Your task to perform on an android device: open a new tab in the chrome app Image 0: 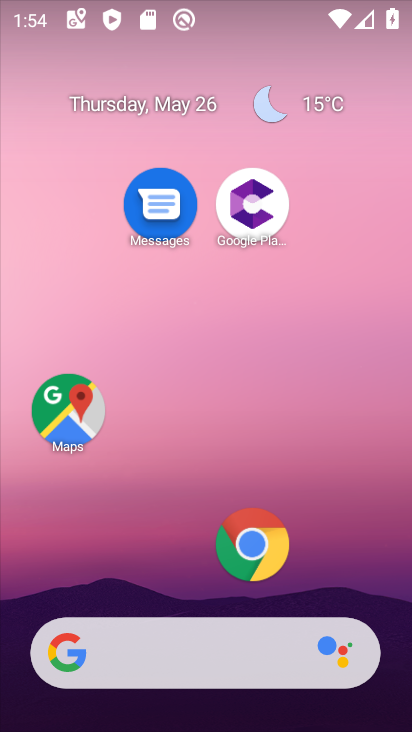
Step 0: click (268, 531)
Your task to perform on an android device: open a new tab in the chrome app Image 1: 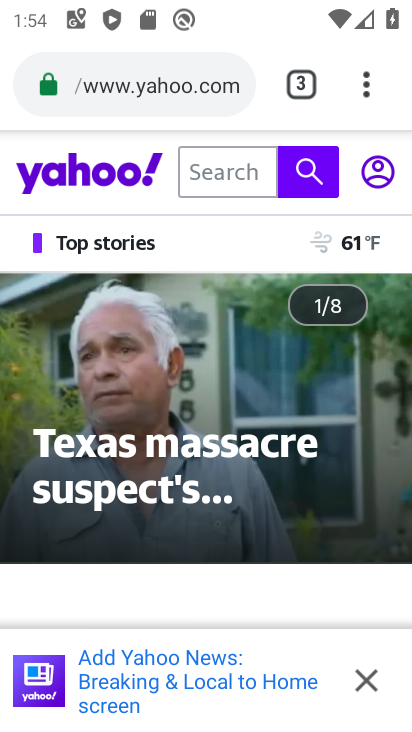
Step 1: click (382, 77)
Your task to perform on an android device: open a new tab in the chrome app Image 2: 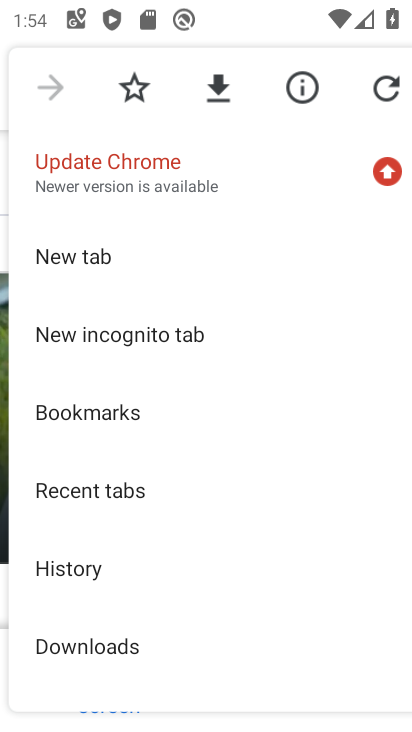
Step 2: click (117, 256)
Your task to perform on an android device: open a new tab in the chrome app Image 3: 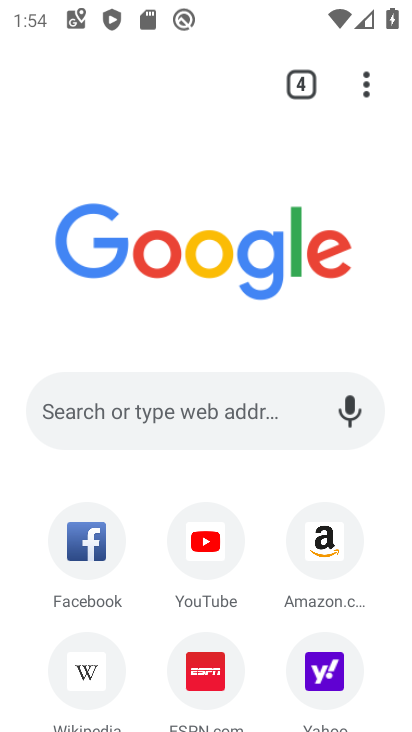
Step 3: task complete